Your task to perform on an android device: turn on translation in the chrome app Image 0: 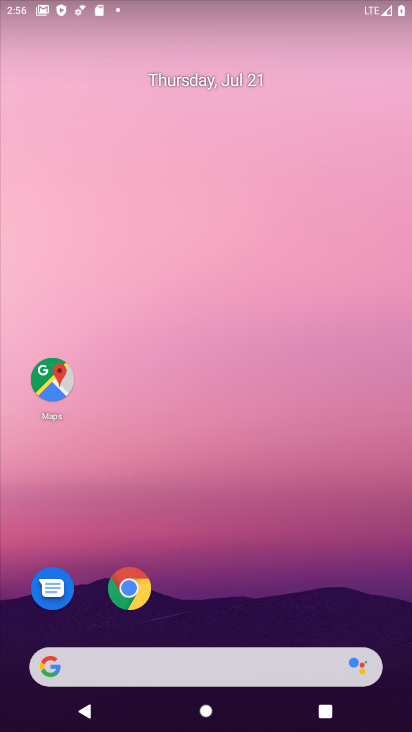
Step 0: click (132, 574)
Your task to perform on an android device: turn on translation in the chrome app Image 1: 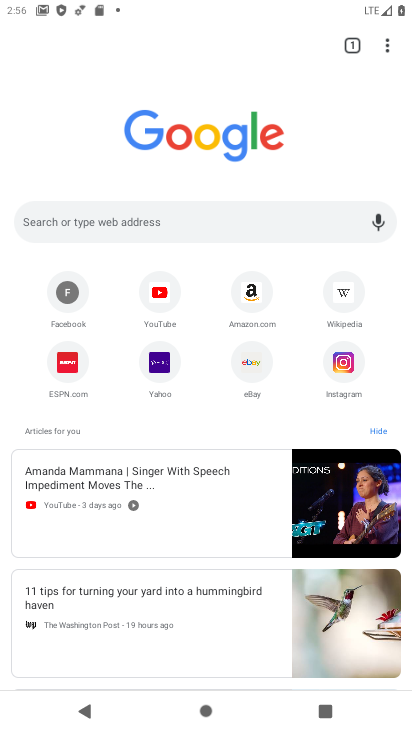
Step 1: click (384, 41)
Your task to perform on an android device: turn on translation in the chrome app Image 2: 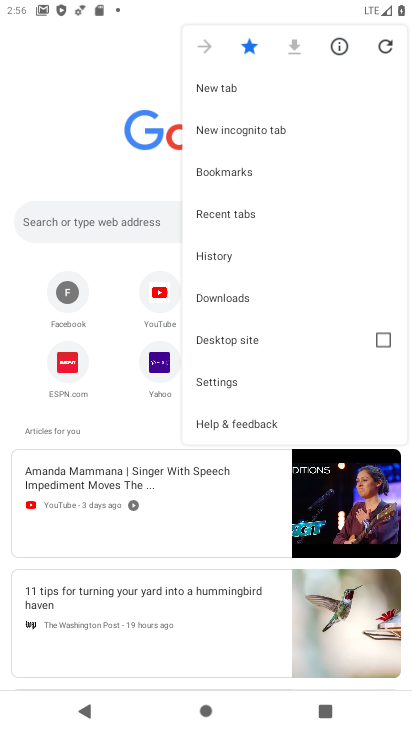
Step 2: click (208, 384)
Your task to perform on an android device: turn on translation in the chrome app Image 3: 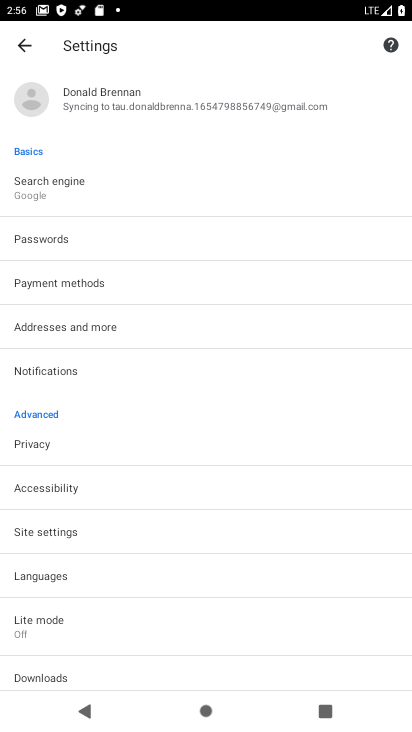
Step 3: click (46, 586)
Your task to perform on an android device: turn on translation in the chrome app Image 4: 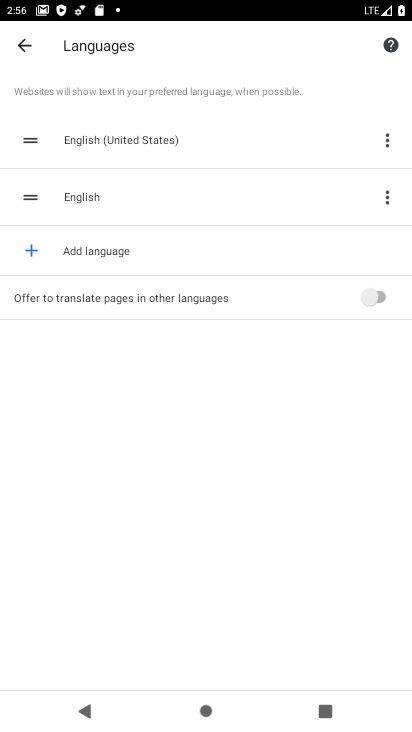
Step 4: click (369, 289)
Your task to perform on an android device: turn on translation in the chrome app Image 5: 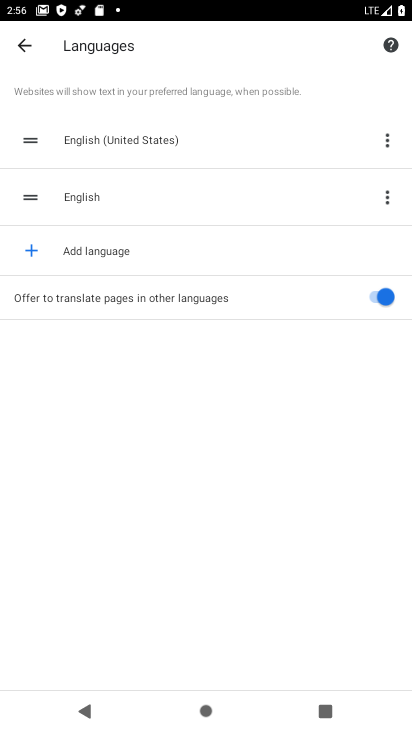
Step 5: task complete